Your task to perform on an android device: Go to Reddit.com Image 0: 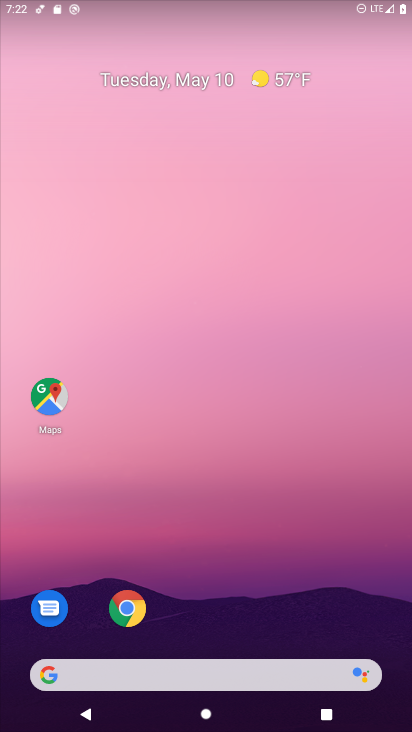
Step 0: drag from (295, 626) to (287, 36)
Your task to perform on an android device: Go to Reddit.com Image 1: 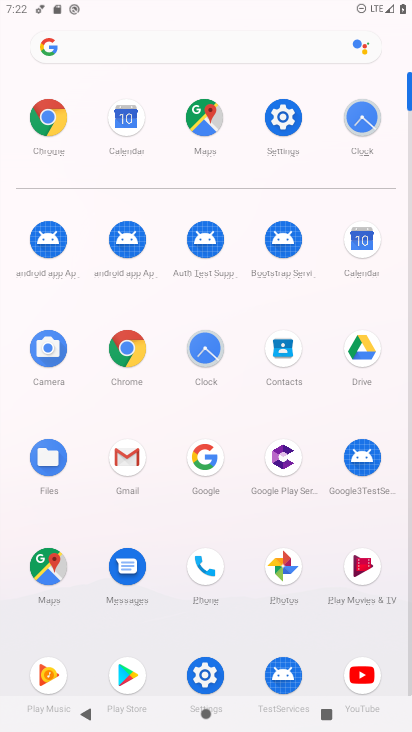
Step 1: click (140, 374)
Your task to perform on an android device: Go to Reddit.com Image 2: 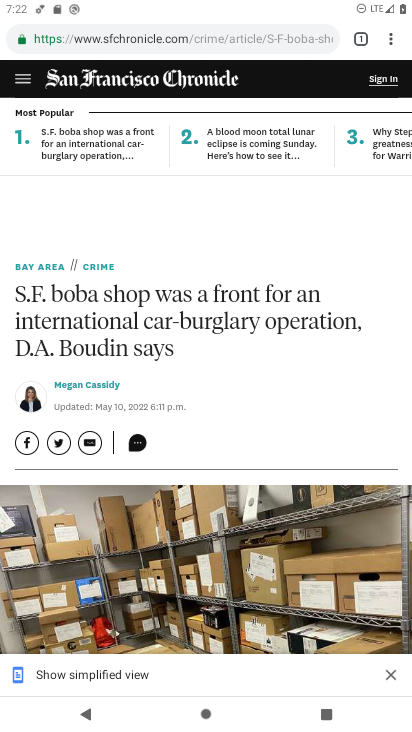
Step 2: press back button
Your task to perform on an android device: Go to Reddit.com Image 3: 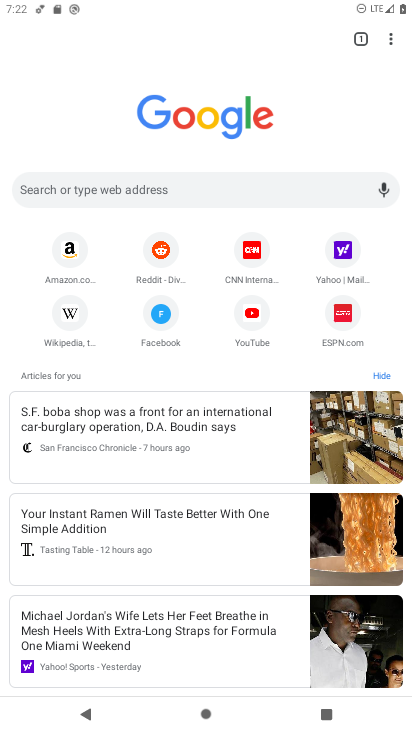
Step 3: click (155, 252)
Your task to perform on an android device: Go to Reddit.com Image 4: 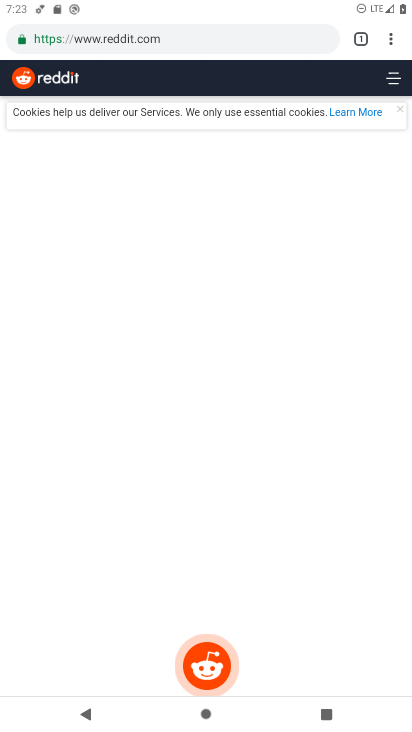
Step 4: task complete